Your task to perform on an android device: uninstall "ZOOM Cloud Meetings" Image 0: 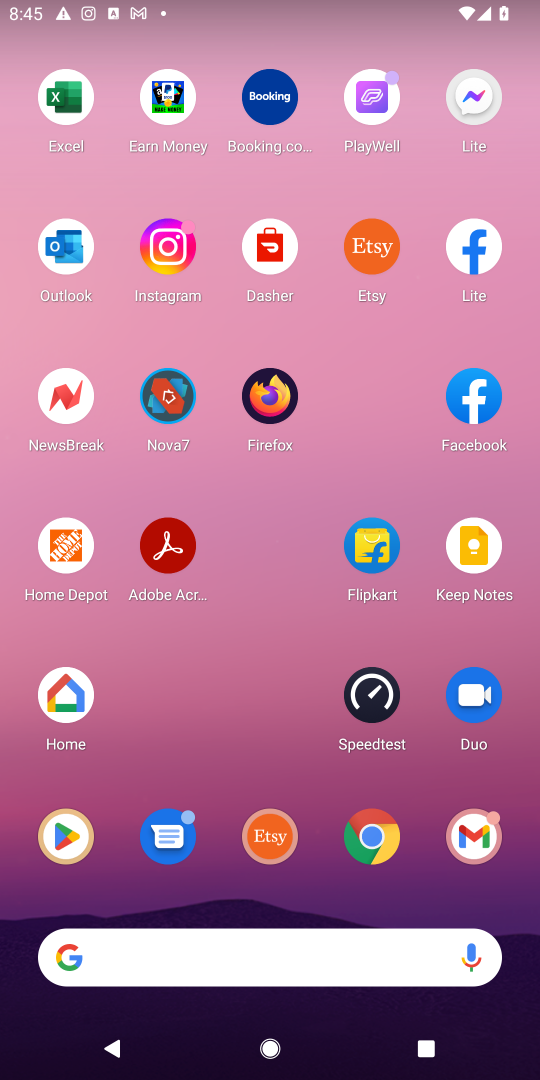
Step 0: press home button
Your task to perform on an android device: uninstall "ZOOM Cloud Meetings" Image 1: 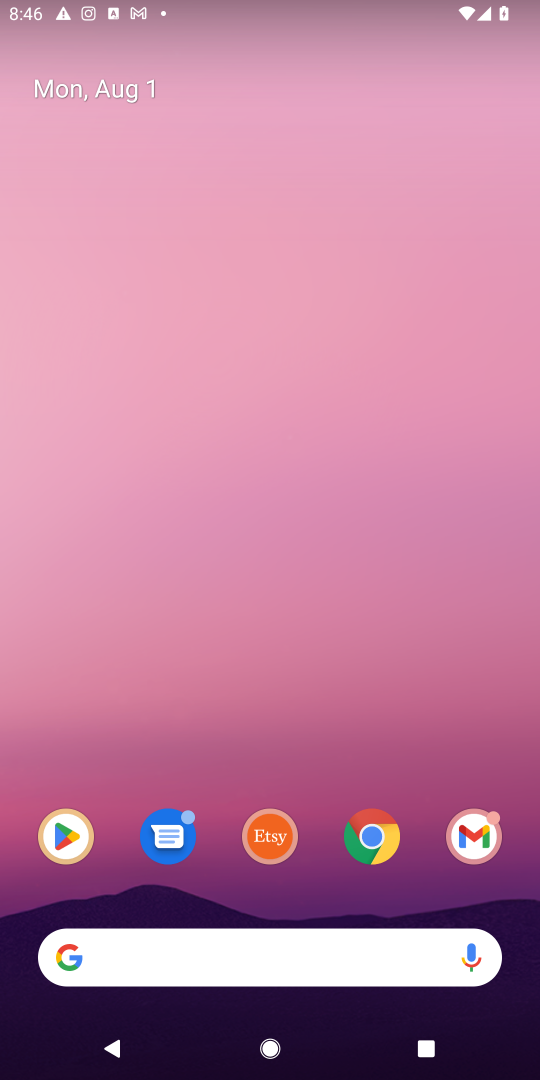
Step 1: click (61, 837)
Your task to perform on an android device: uninstall "ZOOM Cloud Meetings" Image 2: 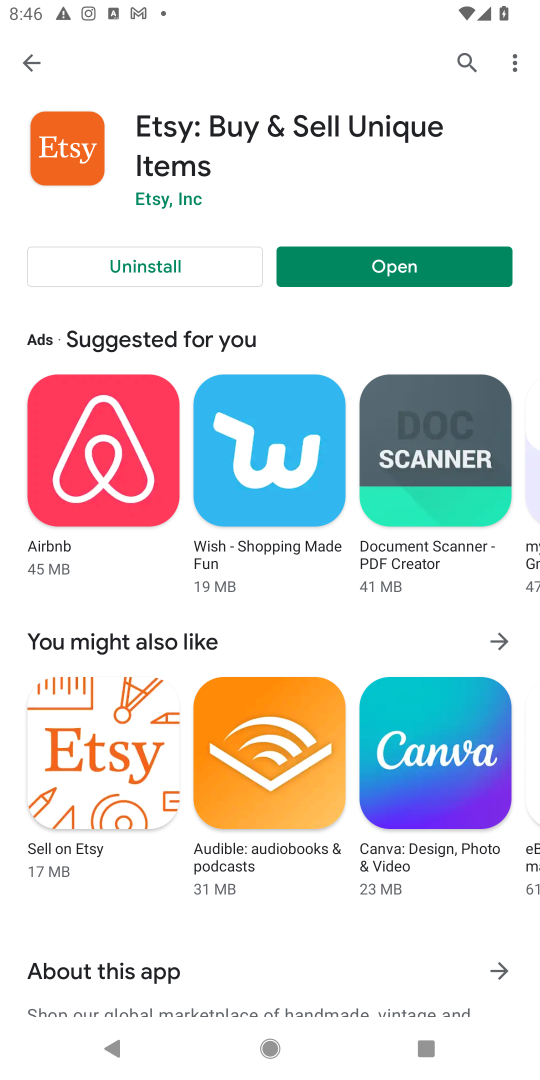
Step 2: click (464, 65)
Your task to perform on an android device: uninstall "ZOOM Cloud Meetings" Image 3: 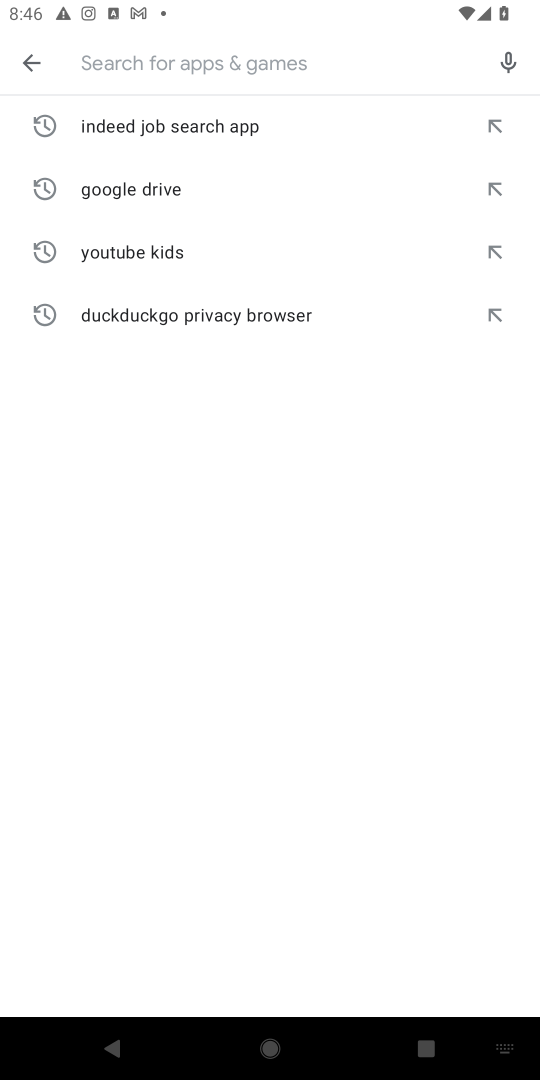
Step 3: type "ZOOM Cloud Meetings"
Your task to perform on an android device: uninstall "ZOOM Cloud Meetings" Image 4: 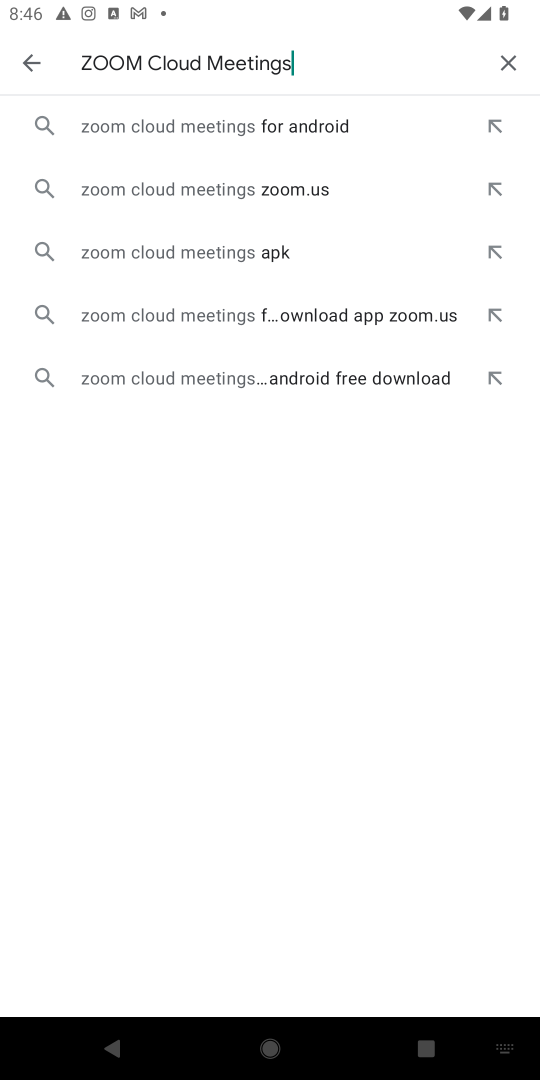
Step 4: click (159, 127)
Your task to perform on an android device: uninstall "ZOOM Cloud Meetings" Image 5: 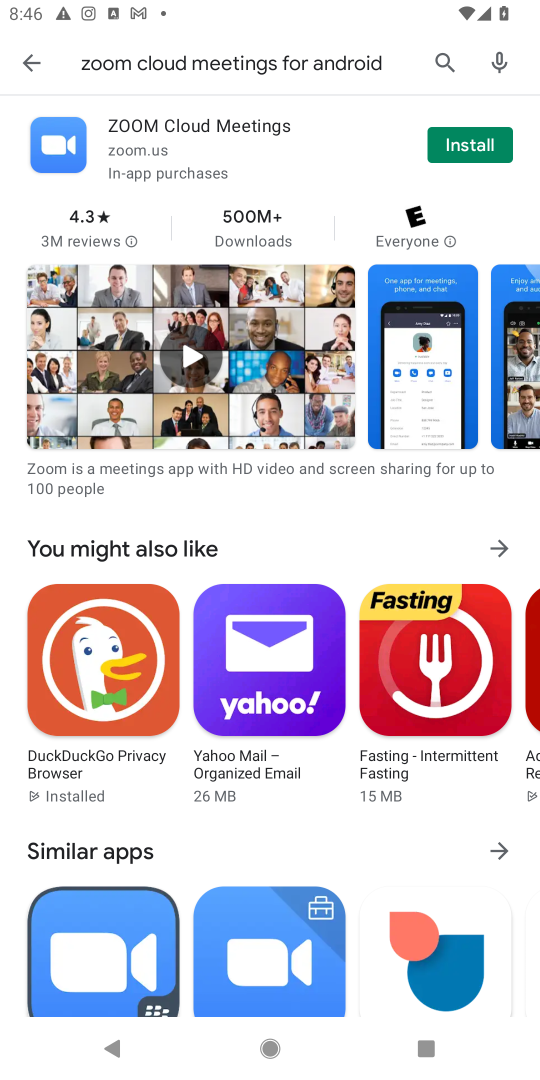
Step 5: task complete